Your task to perform on an android device: open device folders in google photos Image 0: 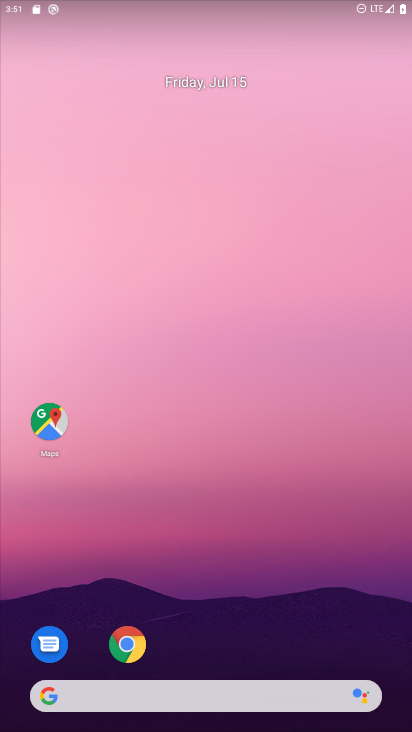
Step 0: press home button
Your task to perform on an android device: open device folders in google photos Image 1: 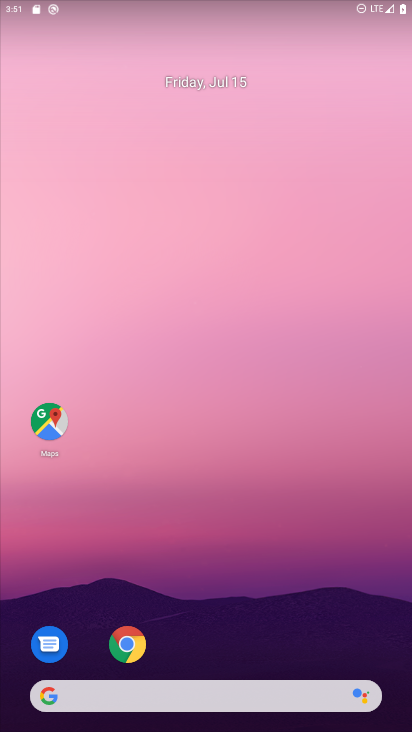
Step 1: drag from (118, 484) to (322, 69)
Your task to perform on an android device: open device folders in google photos Image 2: 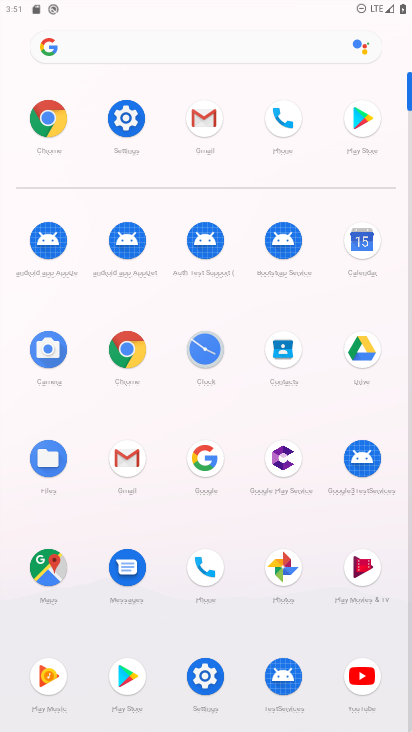
Step 2: click (279, 569)
Your task to perform on an android device: open device folders in google photos Image 3: 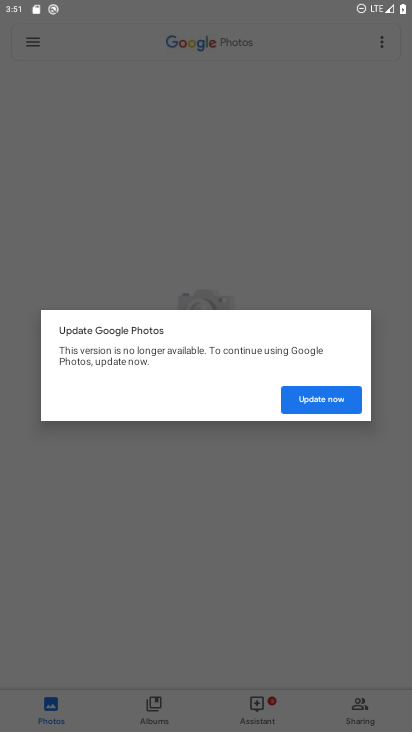
Step 3: click (320, 414)
Your task to perform on an android device: open device folders in google photos Image 4: 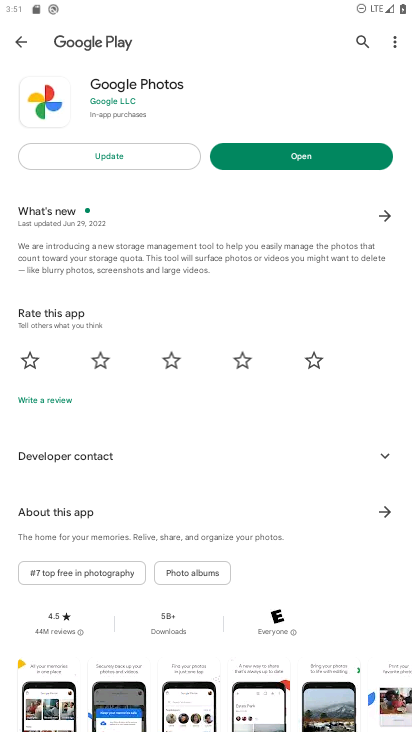
Step 4: click (276, 156)
Your task to perform on an android device: open device folders in google photos Image 5: 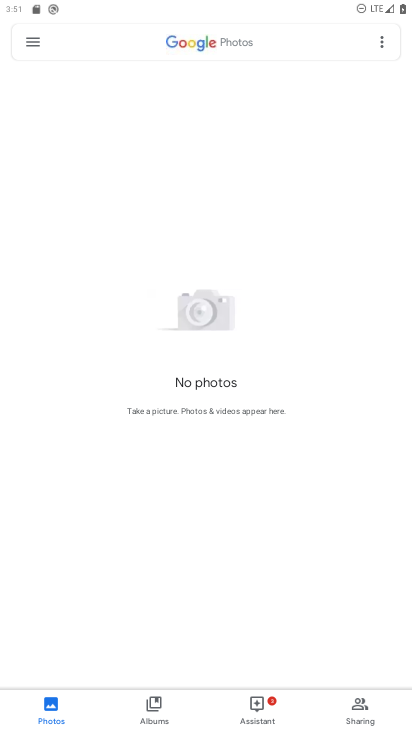
Step 5: click (25, 40)
Your task to perform on an android device: open device folders in google photos Image 6: 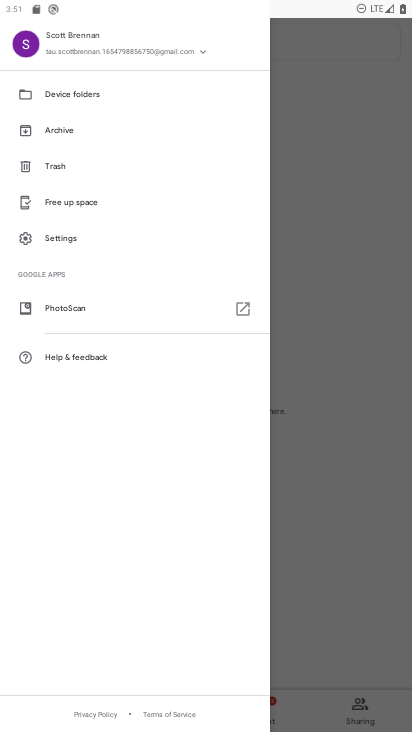
Step 6: click (36, 89)
Your task to perform on an android device: open device folders in google photos Image 7: 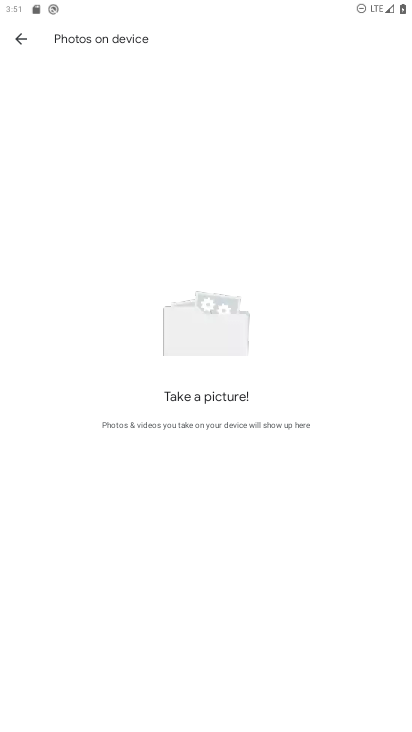
Step 7: task complete